Your task to perform on an android device: Show me productivity apps on the Play Store Image 0: 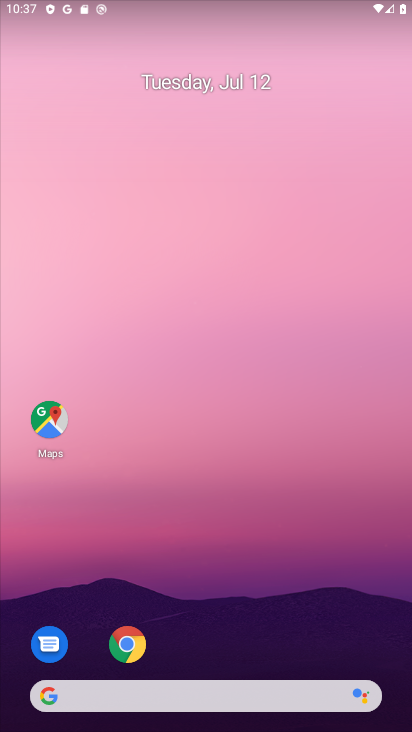
Step 0: drag from (195, 579) to (280, 216)
Your task to perform on an android device: Show me productivity apps on the Play Store Image 1: 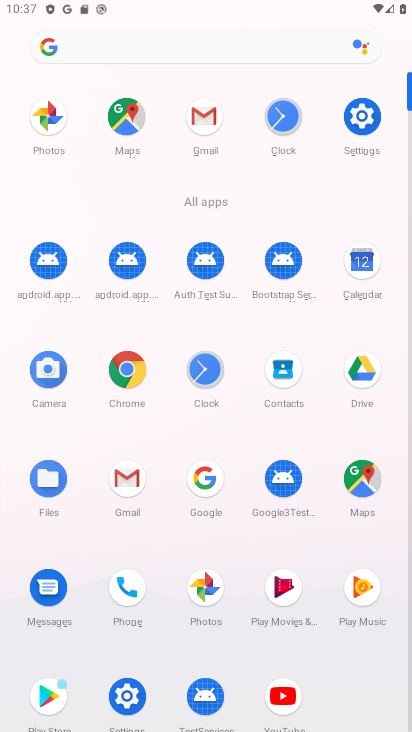
Step 1: click (61, 698)
Your task to perform on an android device: Show me productivity apps on the Play Store Image 2: 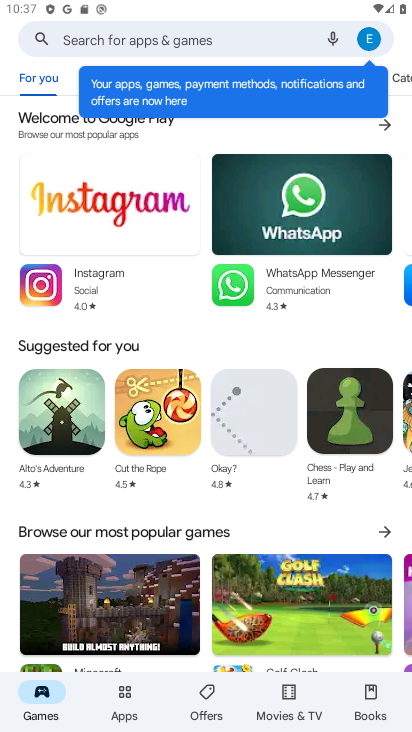
Step 2: click (134, 707)
Your task to perform on an android device: Show me productivity apps on the Play Store Image 3: 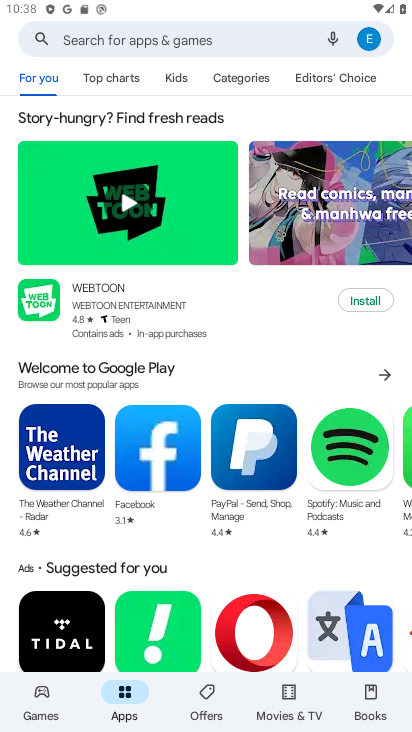
Step 3: click (239, 70)
Your task to perform on an android device: Show me productivity apps on the Play Store Image 4: 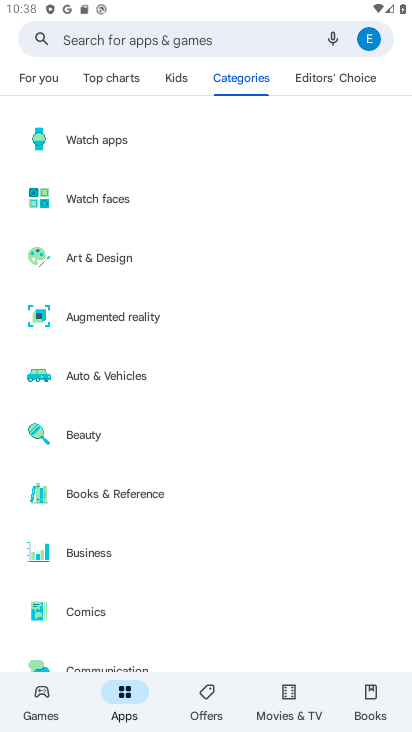
Step 4: drag from (212, 579) to (347, 64)
Your task to perform on an android device: Show me productivity apps on the Play Store Image 5: 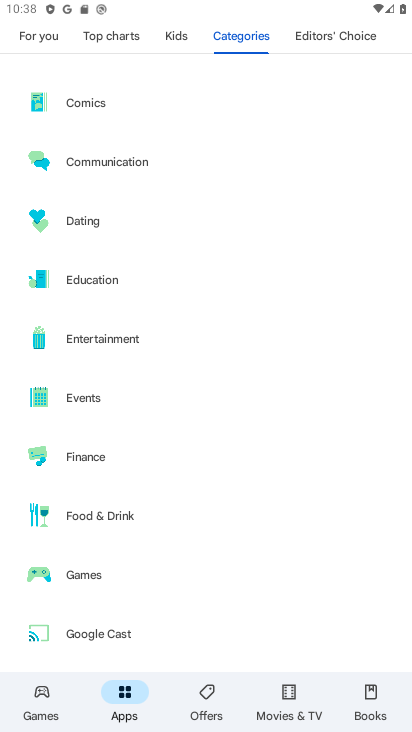
Step 5: drag from (207, 579) to (342, 64)
Your task to perform on an android device: Show me productivity apps on the Play Store Image 6: 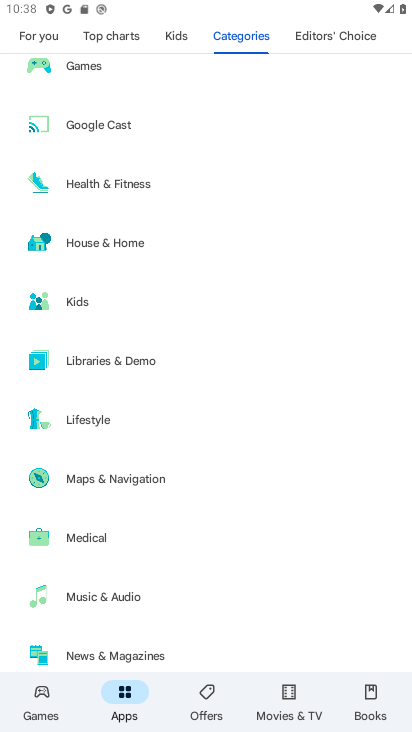
Step 6: drag from (174, 551) to (308, 121)
Your task to perform on an android device: Show me productivity apps on the Play Store Image 7: 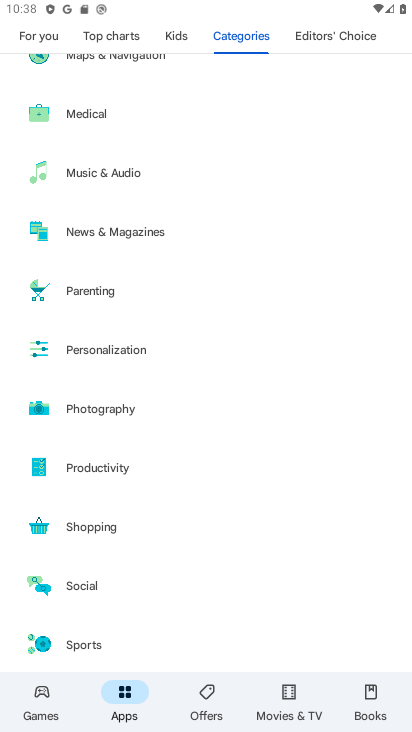
Step 7: click (127, 469)
Your task to perform on an android device: Show me productivity apps on the Play Store Image 8: 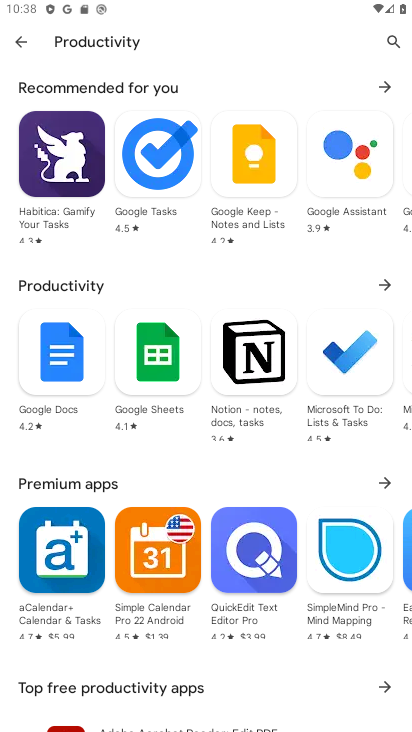
Step 8: task complete